Your task to perform on an android device: Open calendar and show me the third week of next month Image 0: 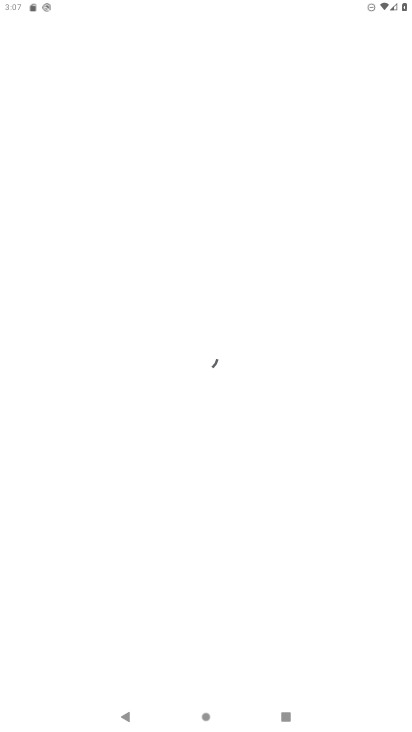
Step 0: press home button
Your task to perform on an android device: Open calendar and show me the third week of next month Image 1: 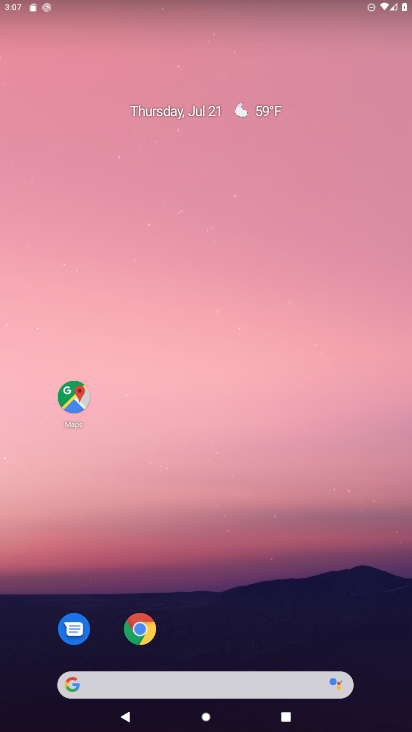
Step 1: drag from (233, 714) to (236, 187)
Your task to perform on an android device: Open calendar and show me the third week of next month Image 2: 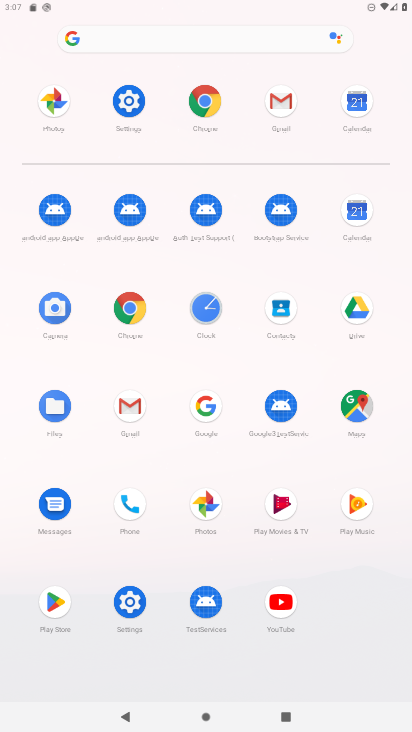
Step 2: click (360, 213)
Your task to perform on an android device: Open calendar and show me the third week of next month Image 3: 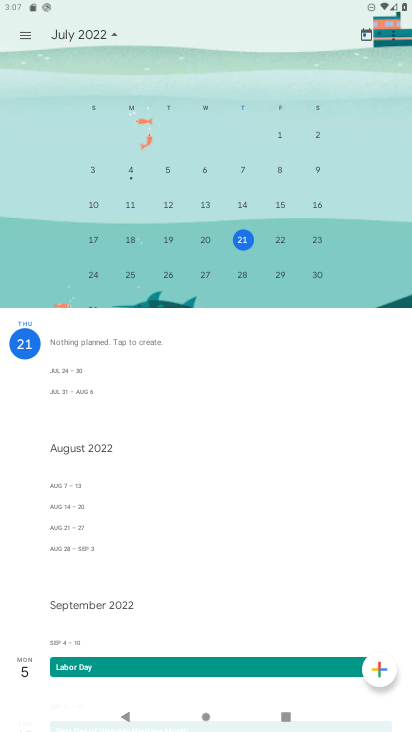
Step 3: drag from (313, 224) to (16, 267)
Your task to perform on an android device: Open calendar and show me the third week of next month Image 4: 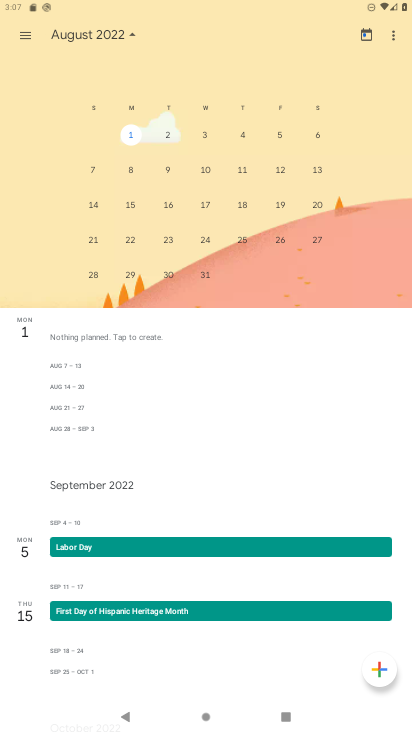
Step 4: click (130, 202)
Your task to perform on an android device: Open calendar and show me the third week of next month Image 5: 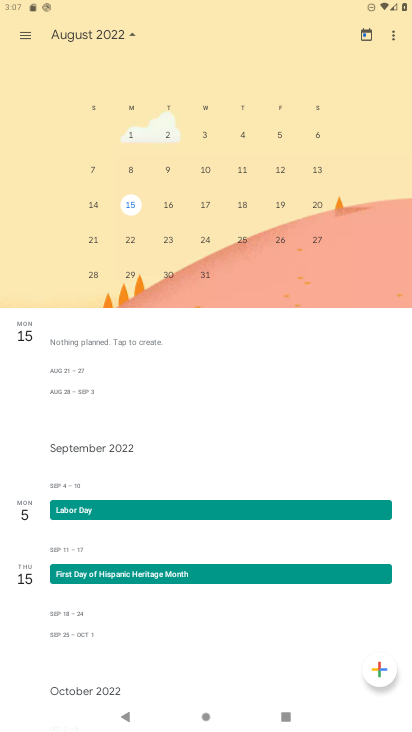
Step 5: click (19, 39)
Your task to perform on an android device: Open calendar and show me the third week of next month Image 6: 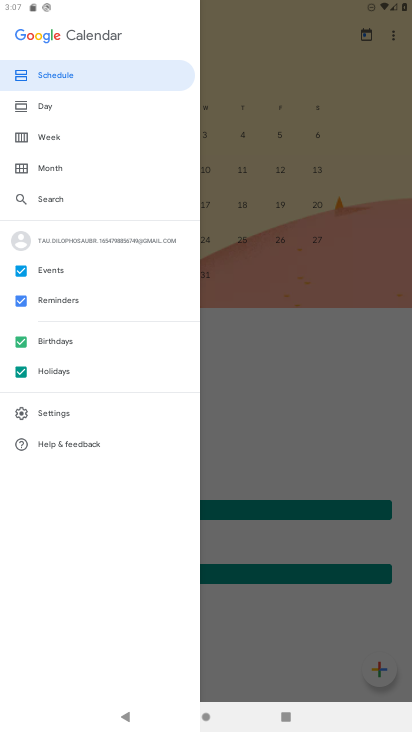
Step 6: click (60, 135)
Your task to perform on an android device: Open calendar and show me the third week of next month Image 7: 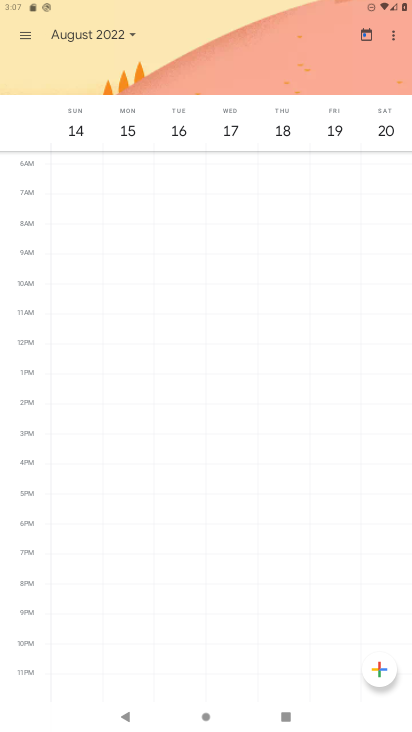
Step 7: press home button
Your task to perform on an android device: Open calendar and show me the third week of next month Image 8: 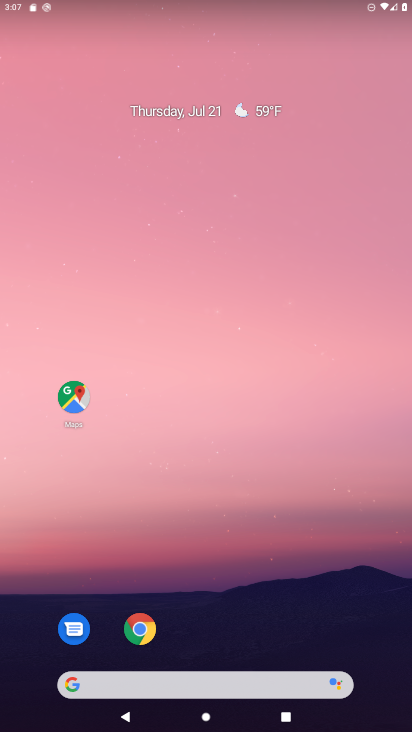
Step 8: drag from (248, 726) to (237, 222)
Your task to perform on an android device: Open calendar and show me the third week of next month Image 9: 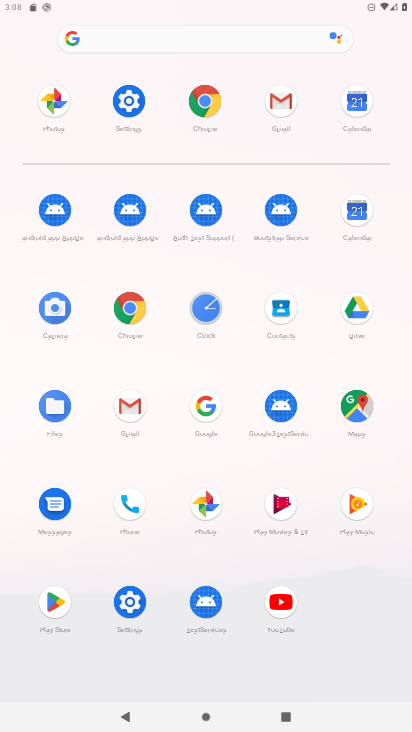
Step 9: click (363, 211)
Your task to perform on an android device: Open calendar and show me the third week of next month Image 10: 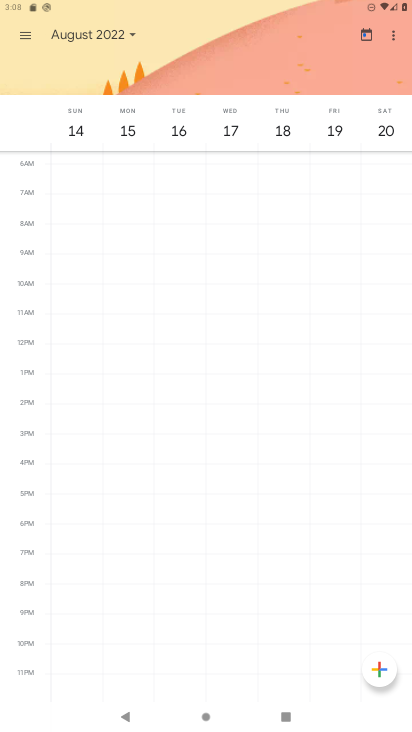
Step 10: click (129, 31)
Your task to perform on an android device: Open calendar and show me the third week of next month Image 11: 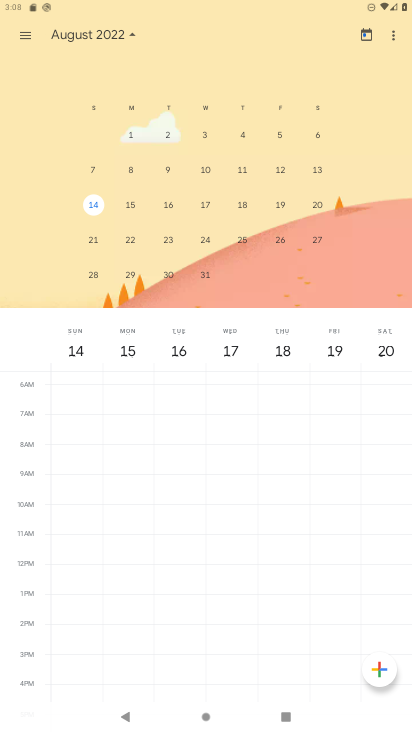
Step 11: click (130, 206)
Your task to perform on an android device: Open calendar and show me the third week of next month Image 12: 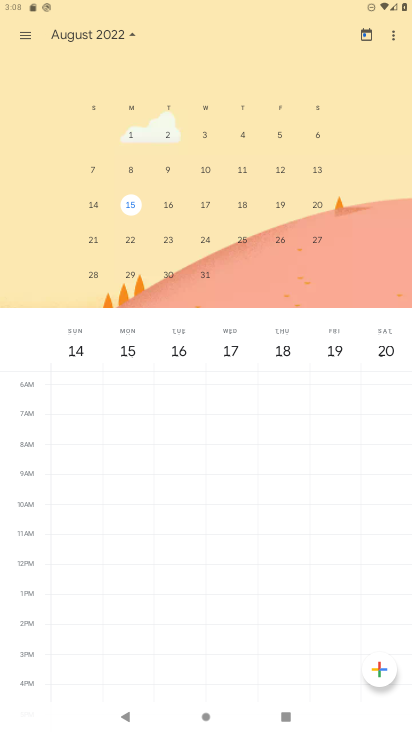
Step 12: click (19, 32)
Your task to perform on an android device: Open calendar and show me the third week of next month Image 13: 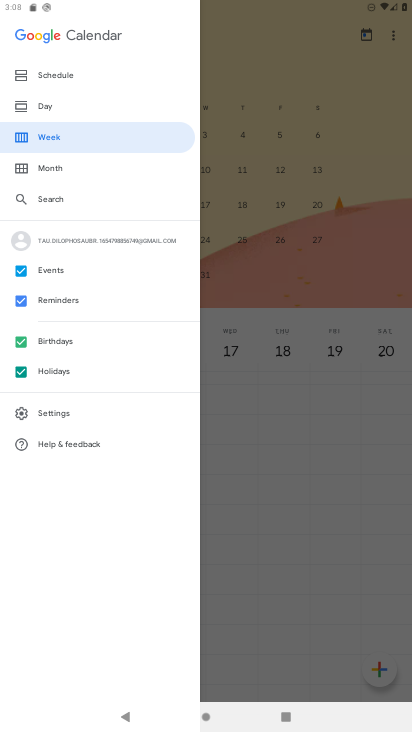
Step 13: click (51, 140)
Your task to perform on an android device: Open calendar and show me the third week of next month Image 14: 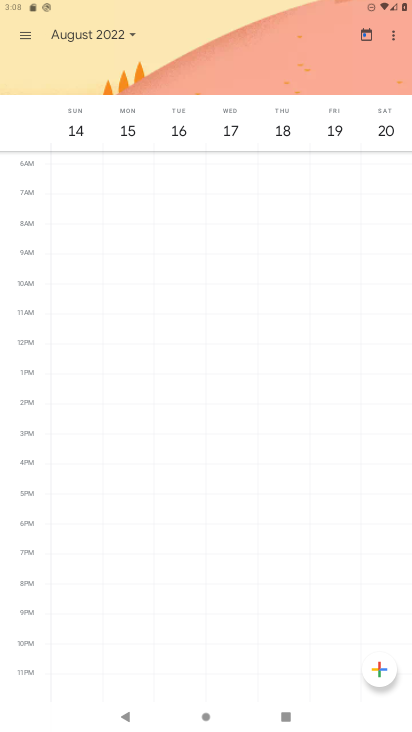
Step 14: task complete